Your task to perform on an android device: Go to notification settings Image 0: 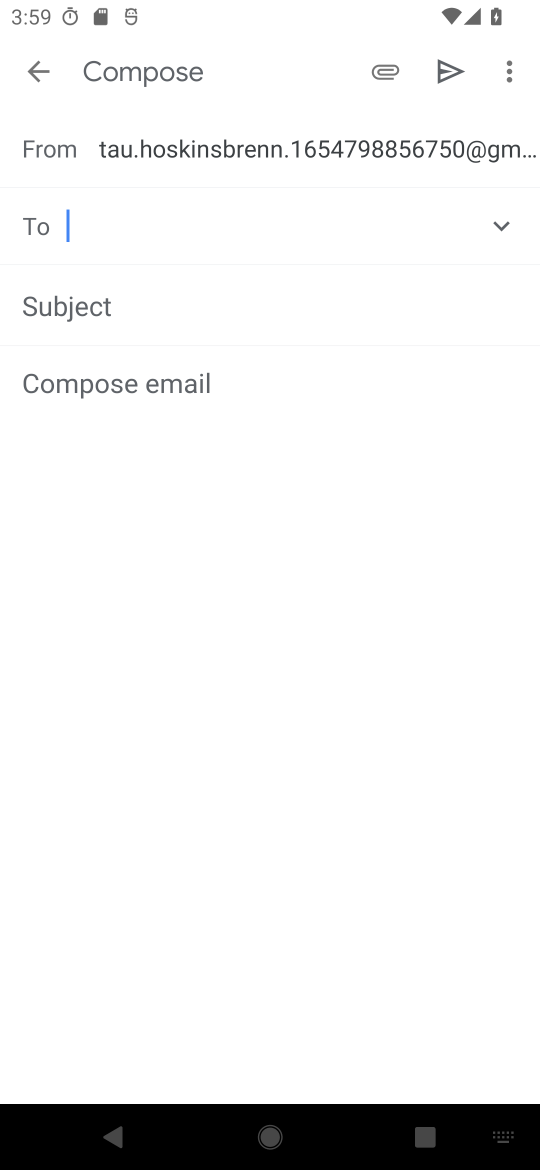
Step 0: press home button
Your task to perform on an android device: Go to notification settings Image 1: 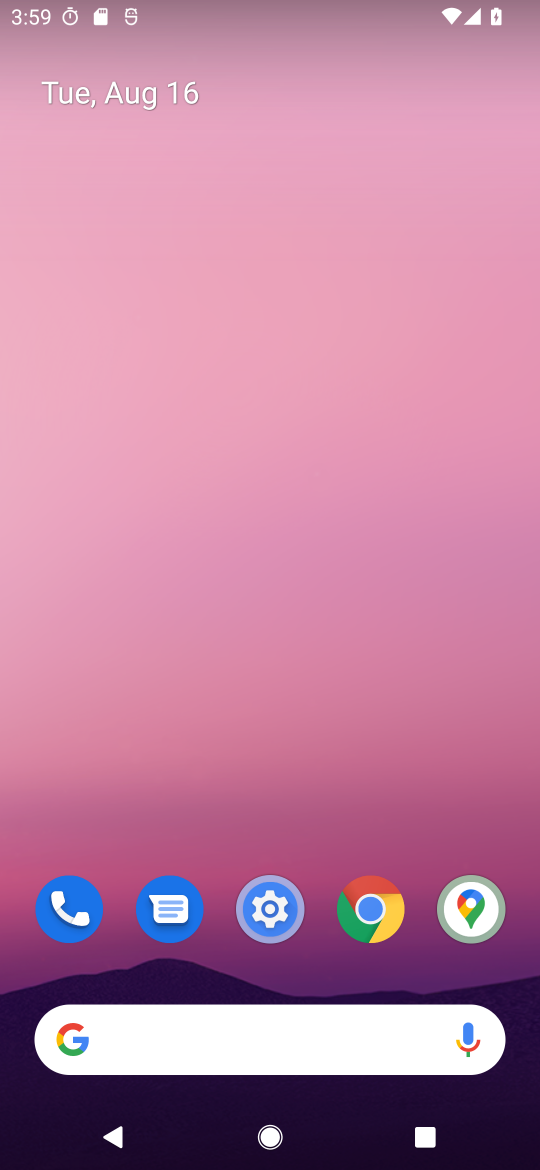
Step 1: click (261, 906)
Your task to perform on an android device: Go to notification settings Image 2: 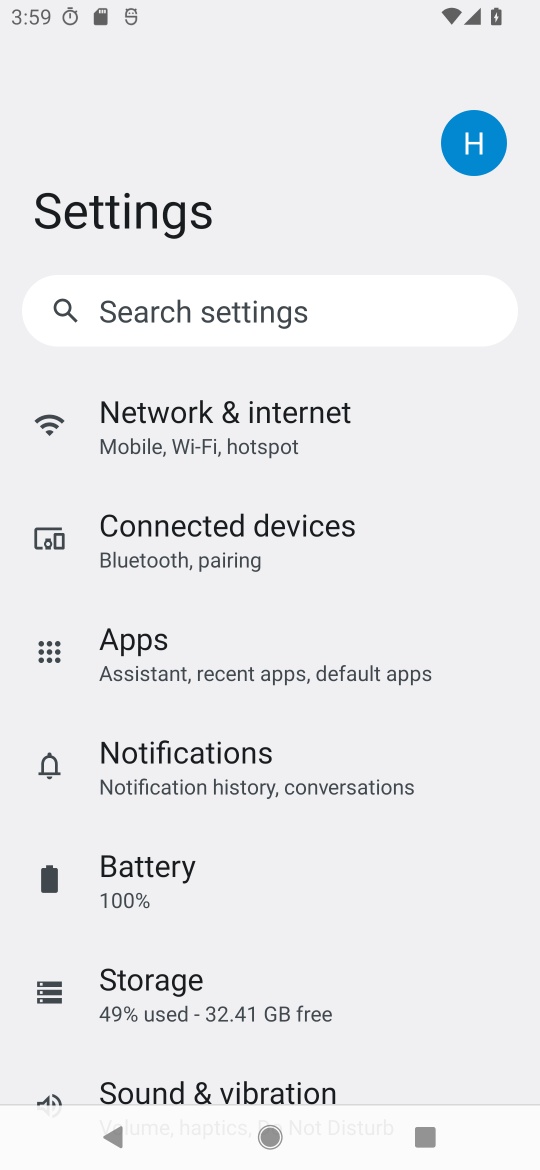
Step 2: click (186, 758)
Your task to perform on an android device: Go to notification settings Image 3: 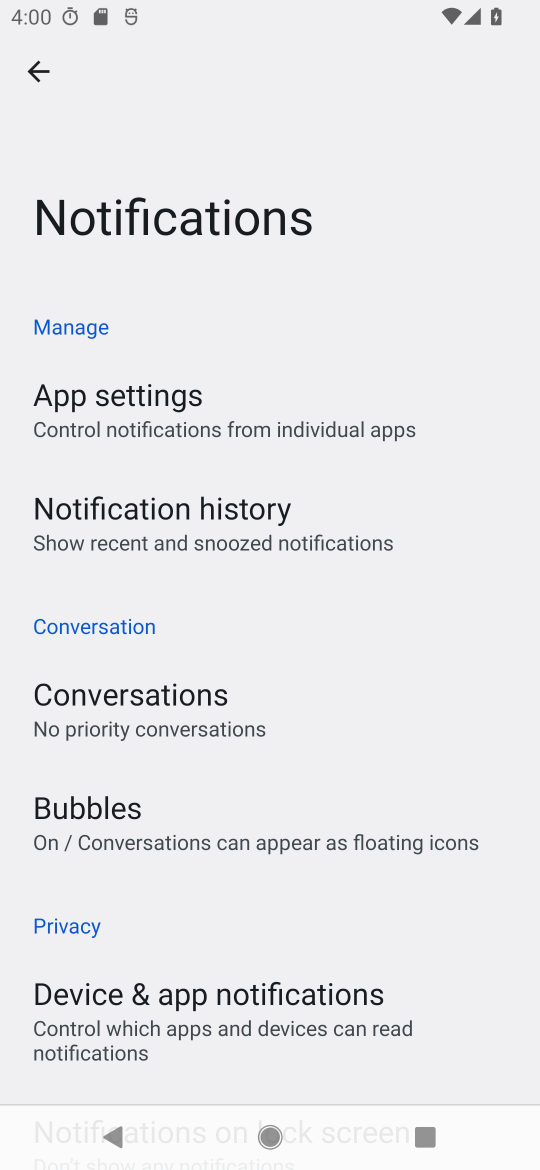
Step 3: task complete